Your task to perform on an android device: uninstall "Mercado Libre" Image 0: 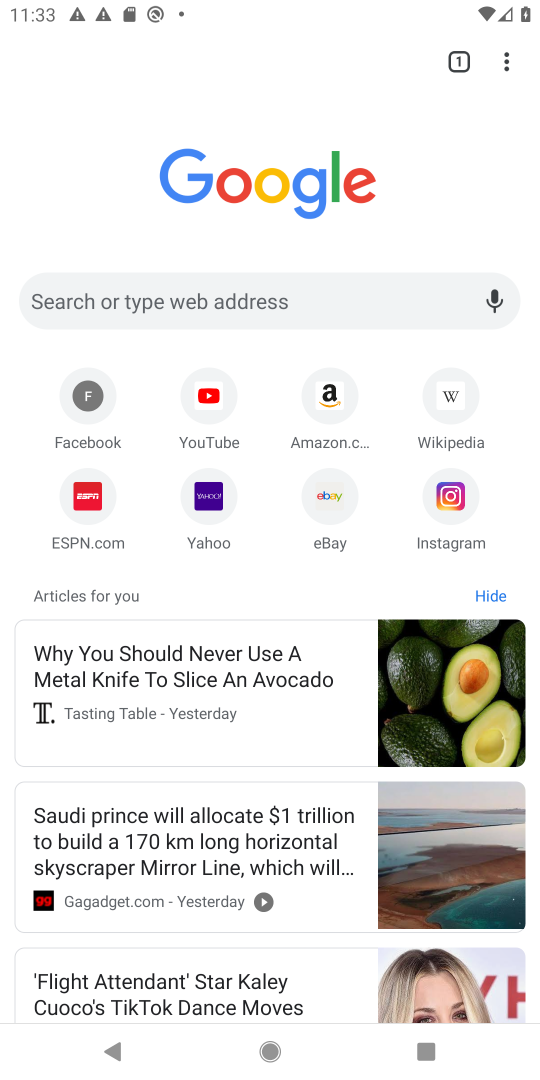
Step 0: press home button
Your task to perform on an android device: uninstall "Mercado Libre" Image 1: 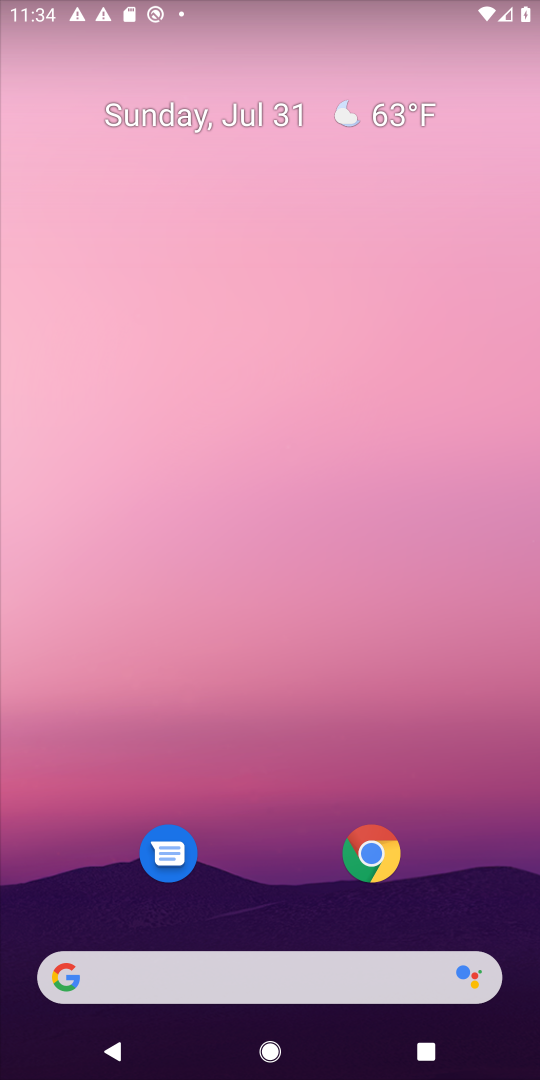
Step 1: drag from (300, 834) to (300, 71)
Your task to perform on an android device: uninstall "Mercado Libre" Image 2: 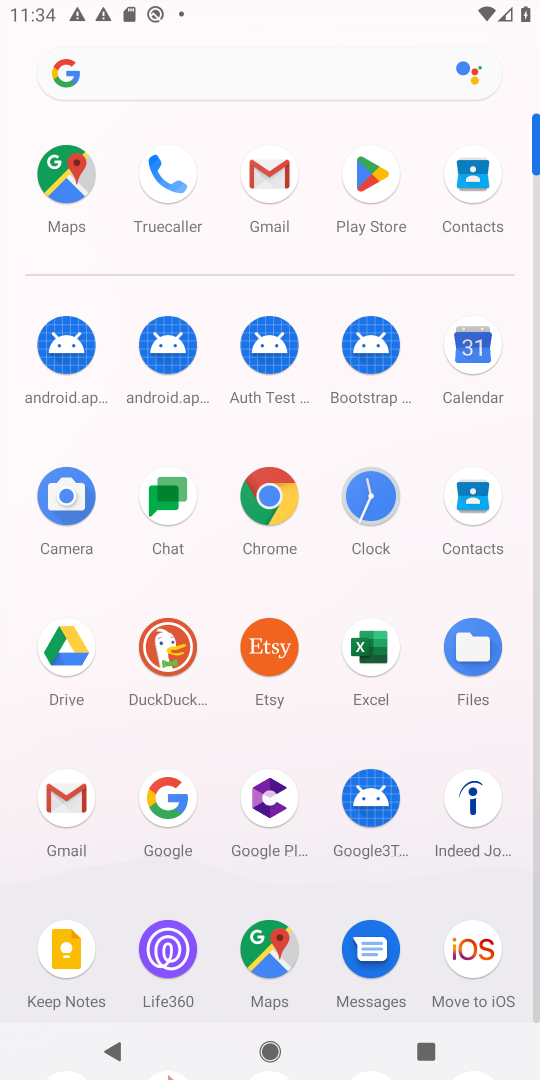
Step 2: click (372, 177)
Your task to perform on an android device: uninstall "Mercado Libre" Image 3: 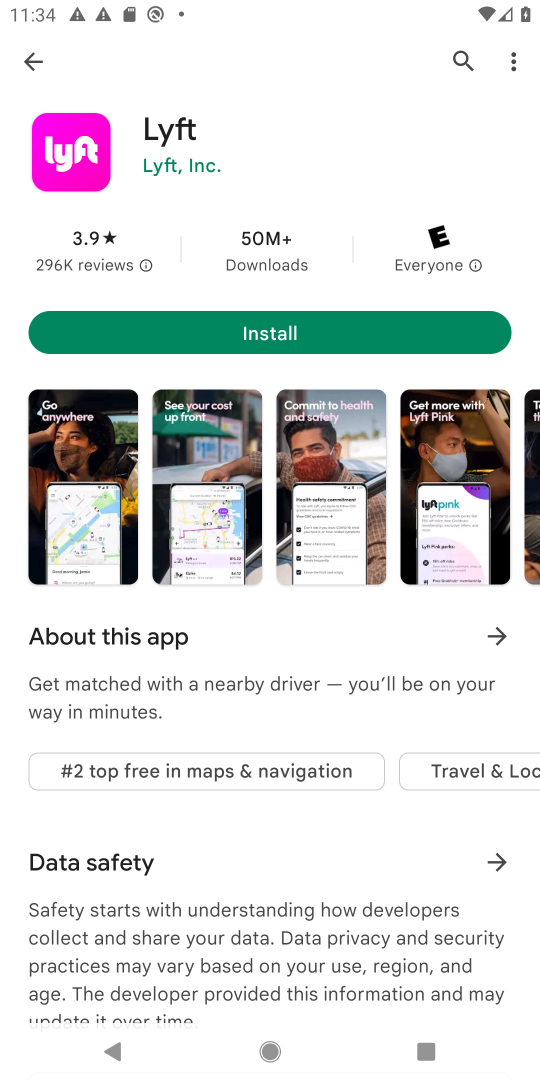
Step 3: click (463, 52)
Your task to perform on an android device: uninstall "Mercado Libre" Image 4: 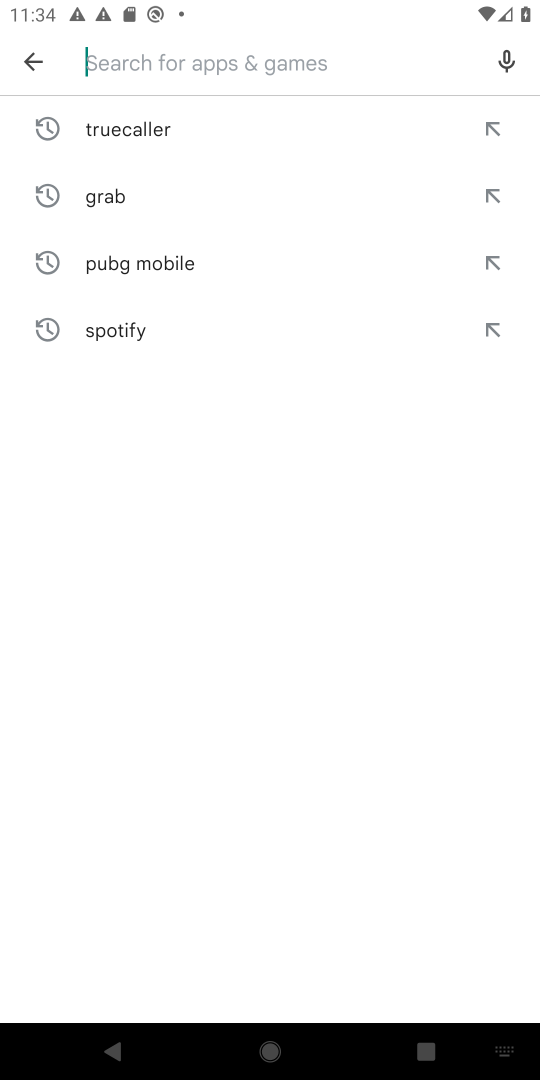
Step 4: type "Mercado Libre"
Your task to perform on an android device: uninstall "Mercado Libre" Image 5: 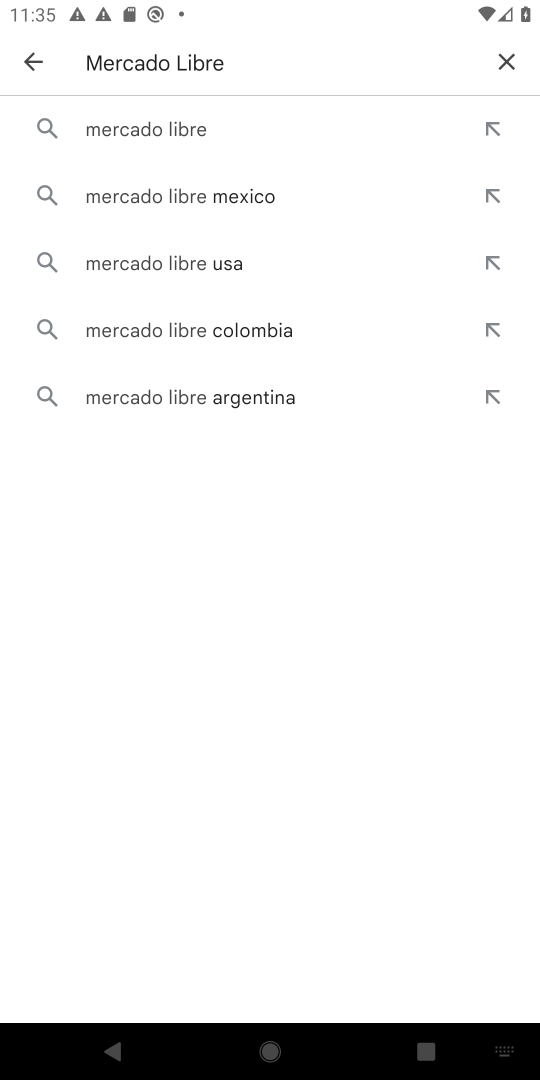
Step 5: click (115, 140)
Your task to perform on an android device: uninstall "Mercado Libre" Image 6: 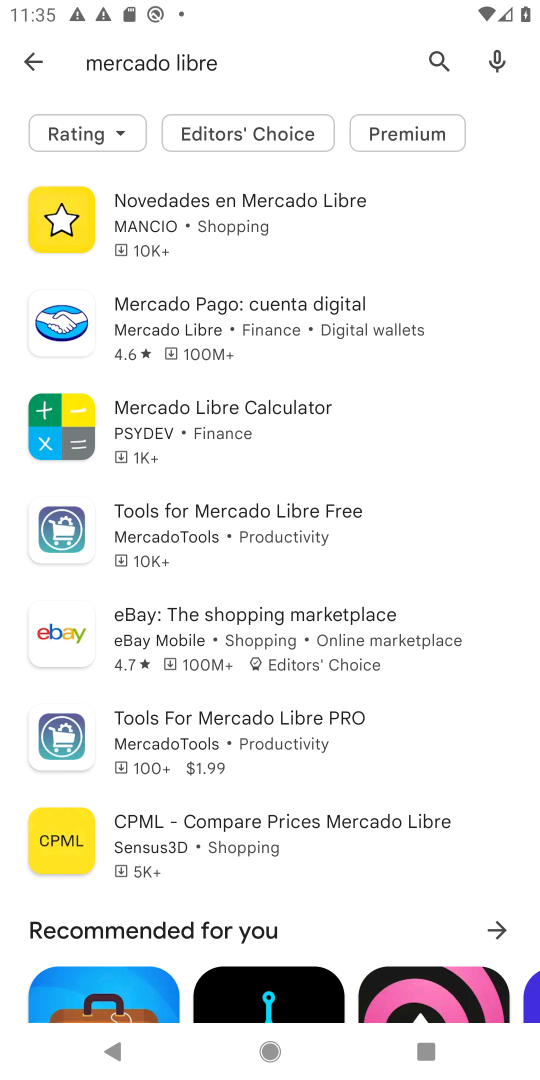
Step 6: task complete